Your task to perform on an android device: Search for seafood restaurants on Google Maps Image 0: 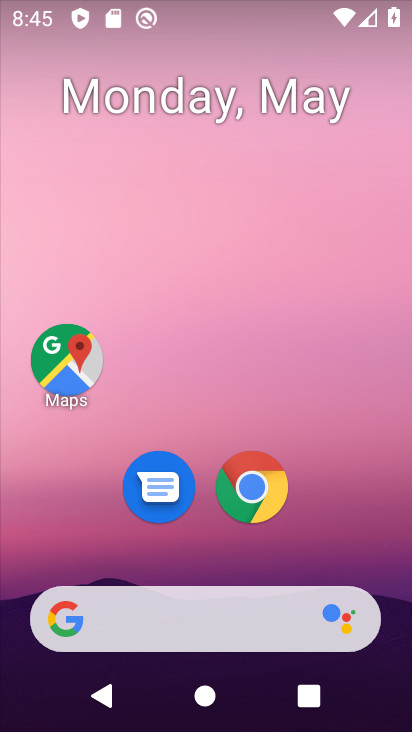
Step 0: click (66, 349)
Your task to perform on an android device: Search for seafood restaurants on Google Maps Image 1: 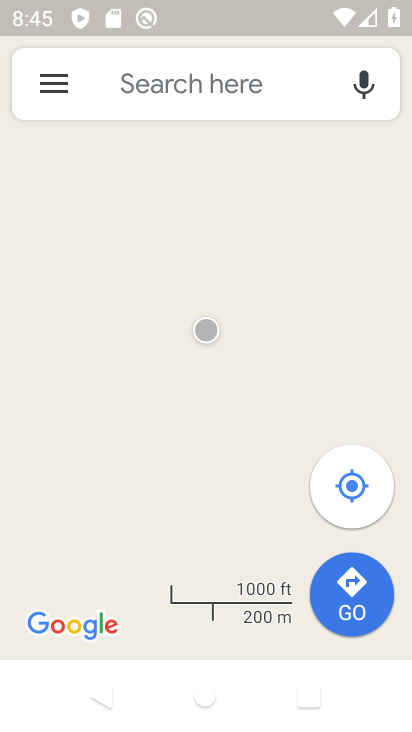
Step 1: click (300, 75)
Your task to perform on an android device: Search for seafood restaurants on Google Maps Image 2: 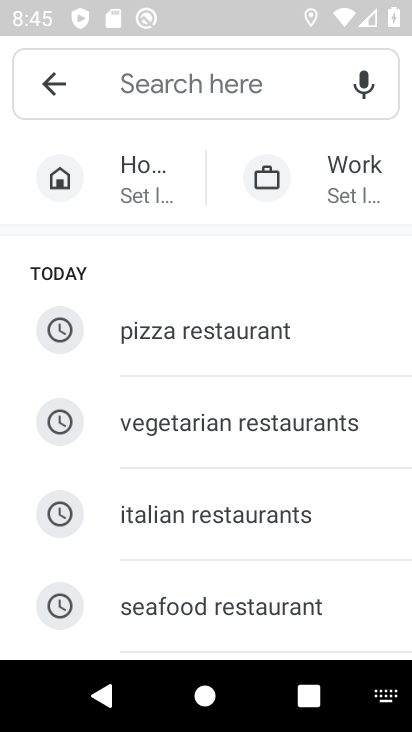
Step 2: type "seafood restaue"
Your task to perform on an android device: Search for seafood restaurants on Google Maps Image 3: 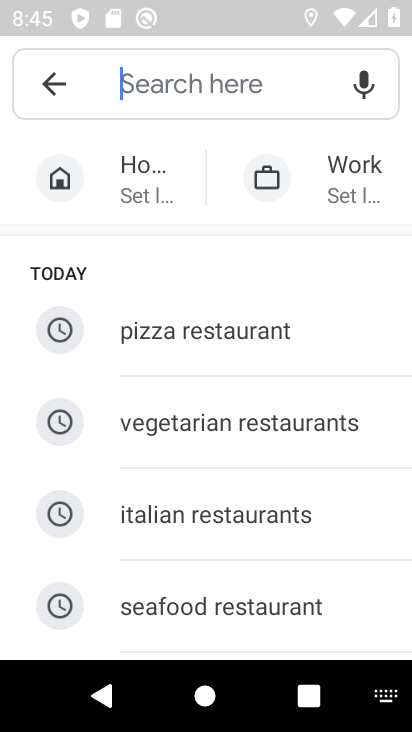
Step 3: click (254, 628)
Your task to perform on an android device: Search for seafood restaurants on Google Maps Image 4: 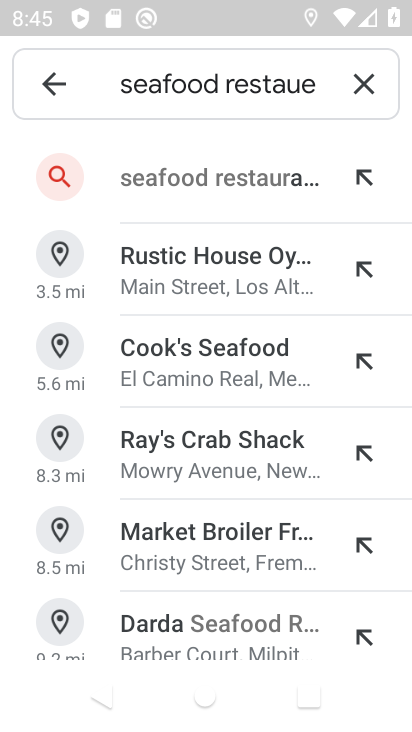
Step 4: click (224, 198)
Your task to perform on an android device: Search for seafood restaurants on Google Maps Image 5: 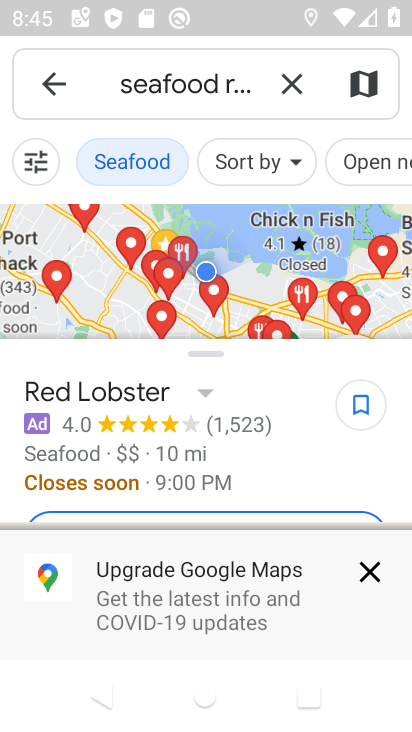
Step 5: task complete